Your task to perform on an android device: Check the news Image 0: 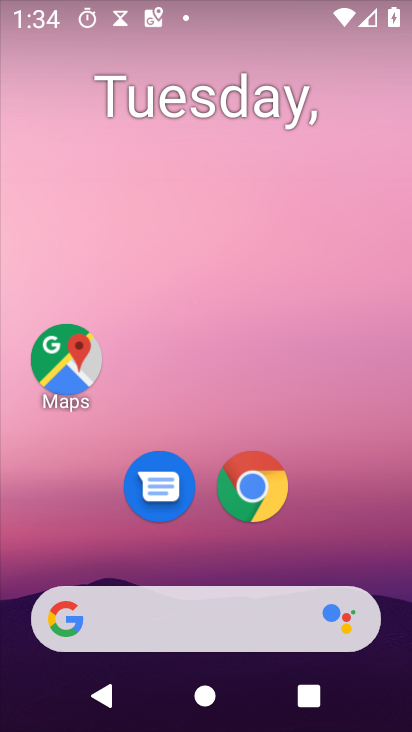
Step 0: drag from (348, 554) to (320, 81)
Your task to perform on an android device: Check the news Image 1: 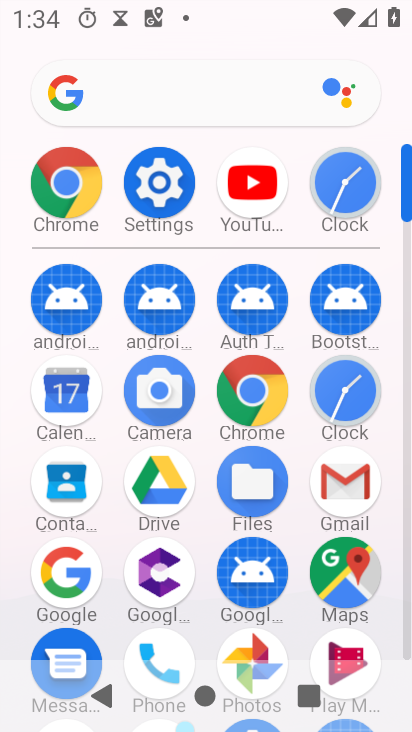
Step 1: click (68, 186)
Your task to perform on an android device: Check the news Image 2: 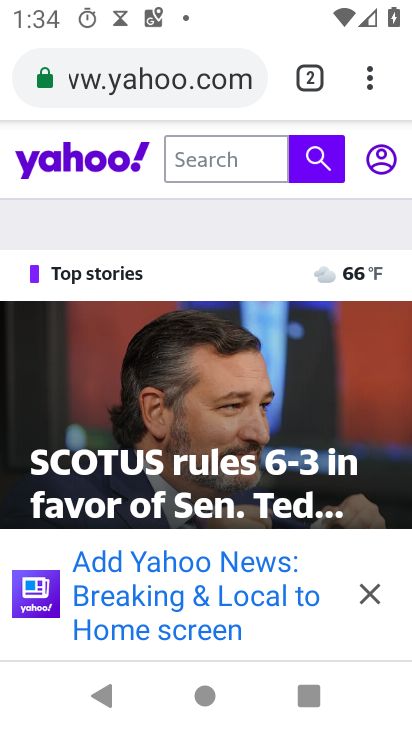
Step 2: click (378, 591)
Your task to perform on an android device: Check the news Image 3: 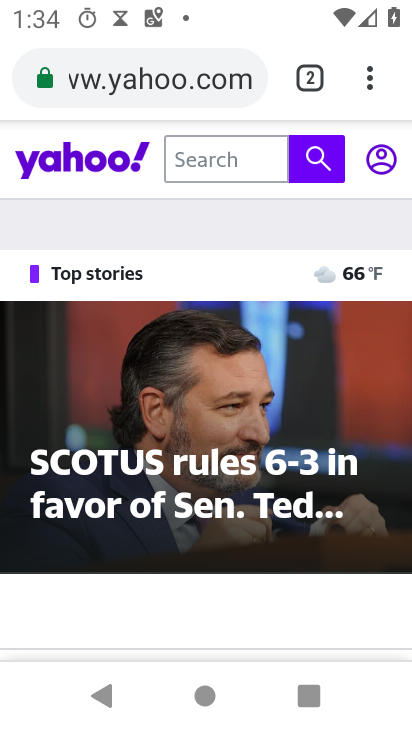
Step 3: click (176, 82)
Your task to perform on an android device: Check the news Image 4: 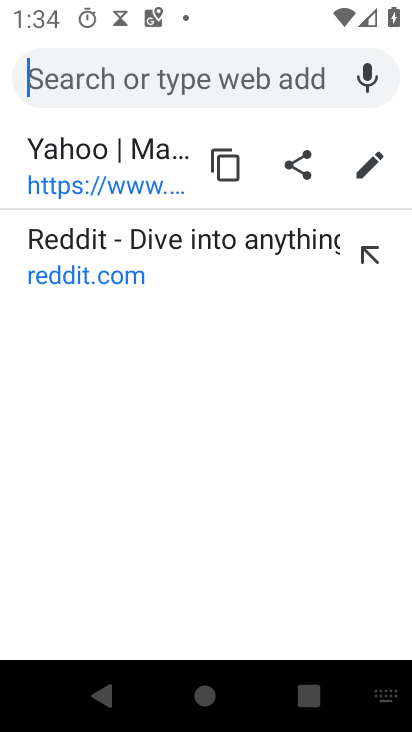
Step 4: type "news"
Your task to perform on an android device: Check the news Image 5: 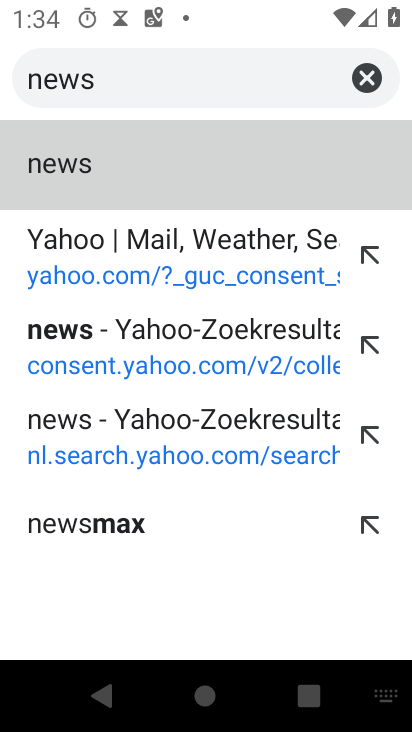
Step 5: click (38, 172)
Your task to perform on an android device: Check the news Image 6: 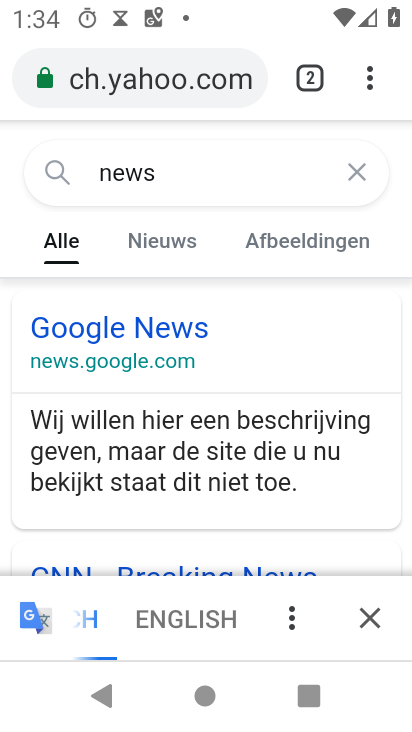
Step 6: click (69, 319)
Your task to perform on an android device: Check the news Image 7: 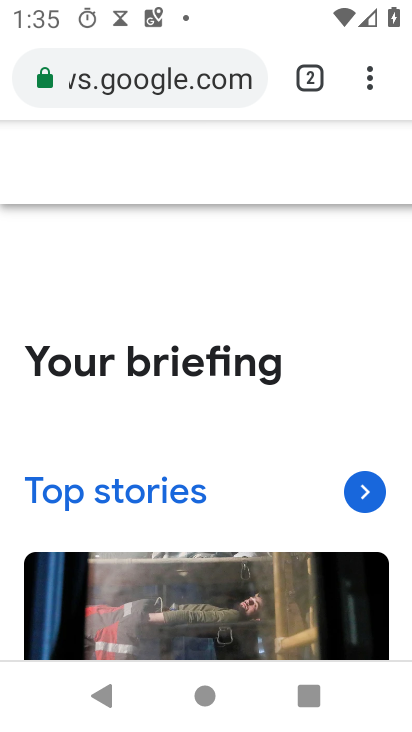
Step 7: task complete